Your task to perform on an android device: Go to notification settings Image 0: 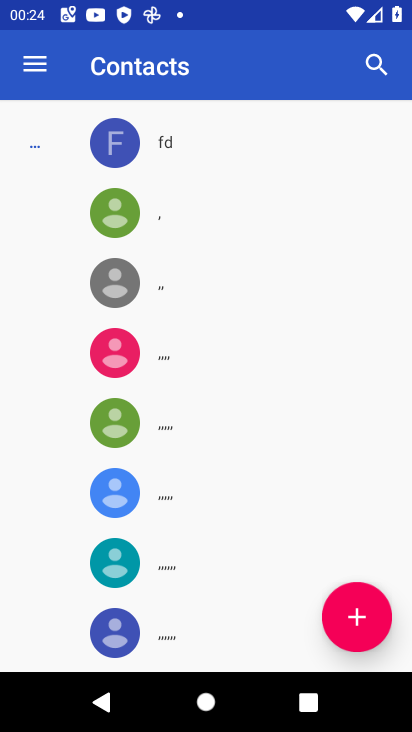
Step 0: press home button
Your task to perform on an android device: Go to notification settings Image 1: 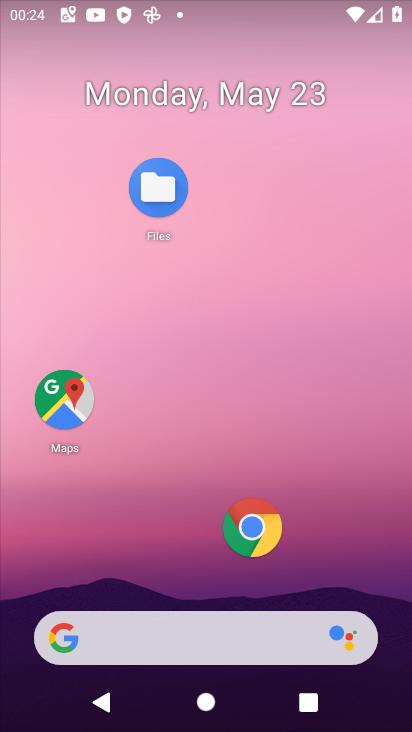
Step 1: drag from (155, 558) to (326, 39)
Your task to perform on an android device: Go to notification settings Image 2: 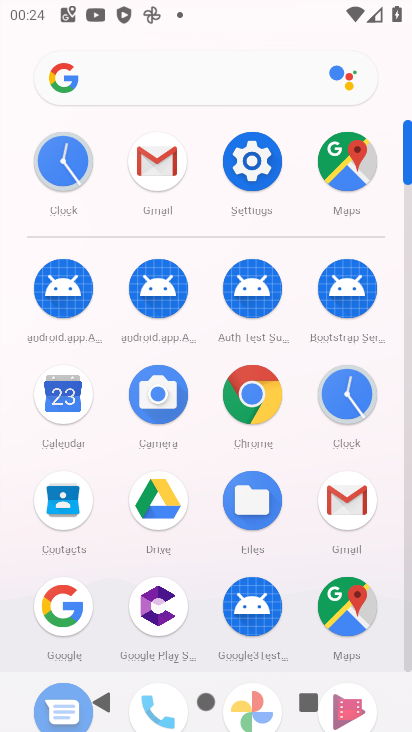
Step 2: click (259, 164)
Your task to perform on an android device: Go to notification settings Image 3: 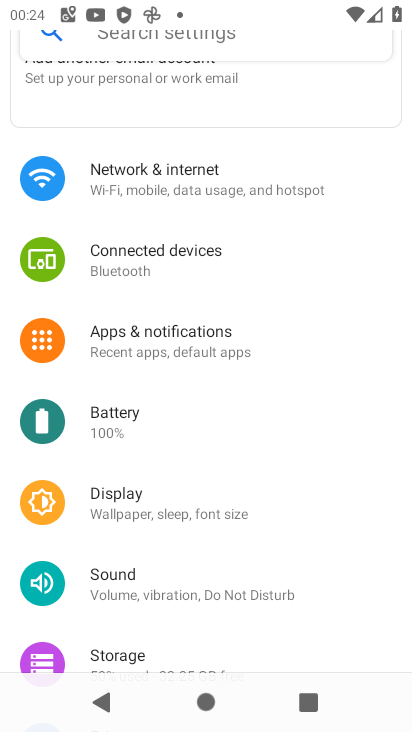
Step 3: click (167, 330)
Your task to perform on an android device: Go to notification settings Image 4: 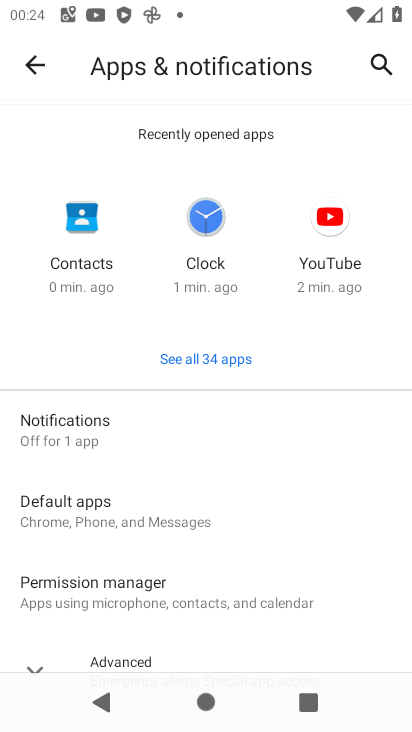
Step 4: task complete